Your task to perform on an android device: What's the news in Nepal? Image 0: 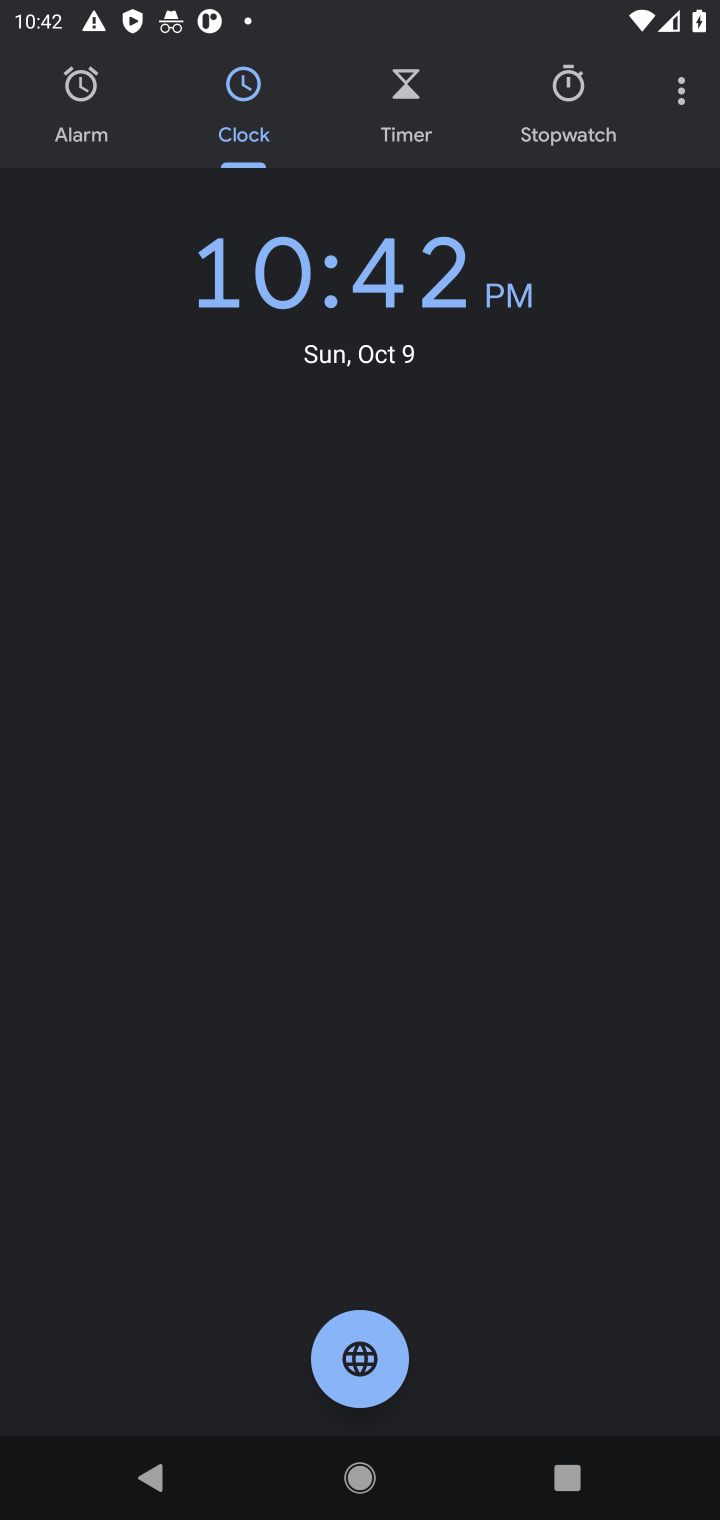
Step 0: press home button
Your task to perform on an android device: What's the news in Nepal? Image 1: 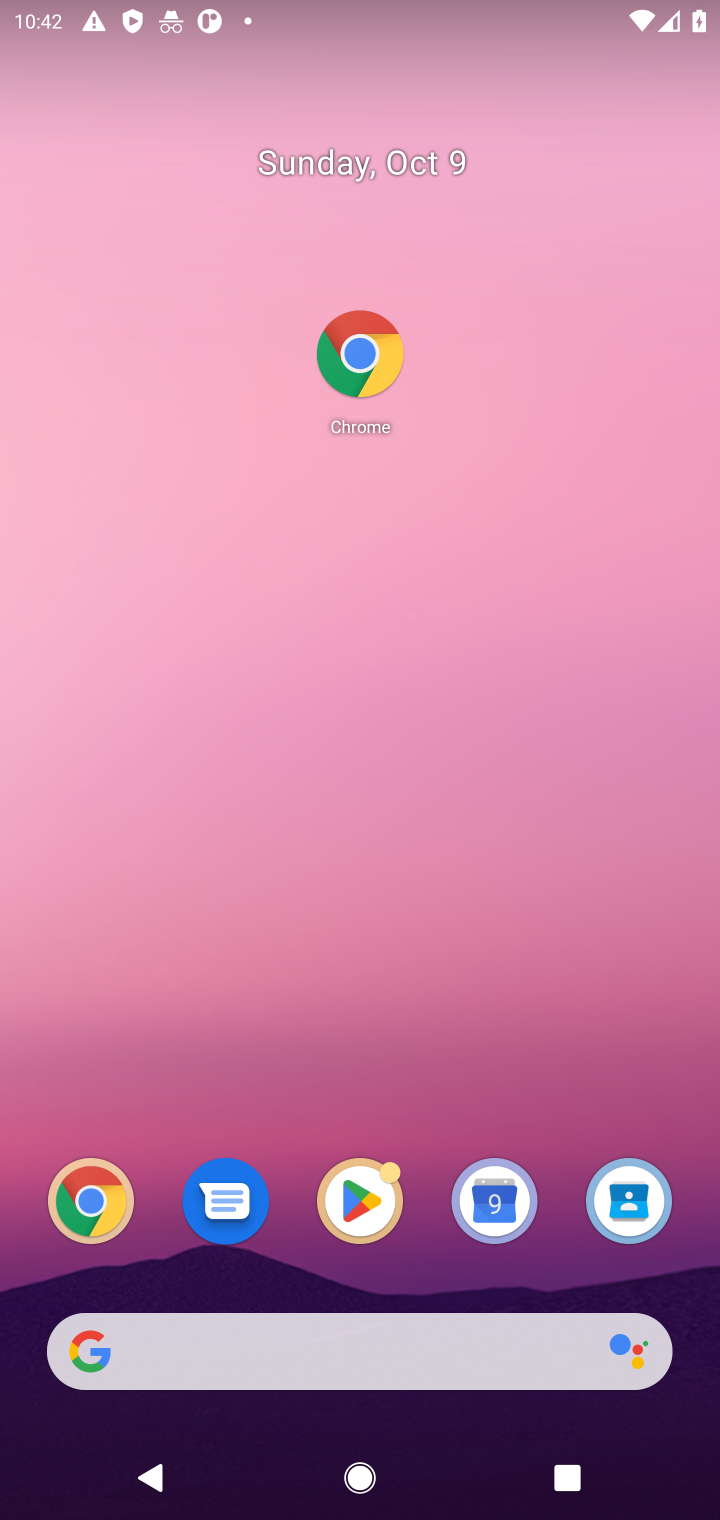
Step 1: click (349, 364)
Your task to perform on an android device: What's the news in Nepal? Image 2: 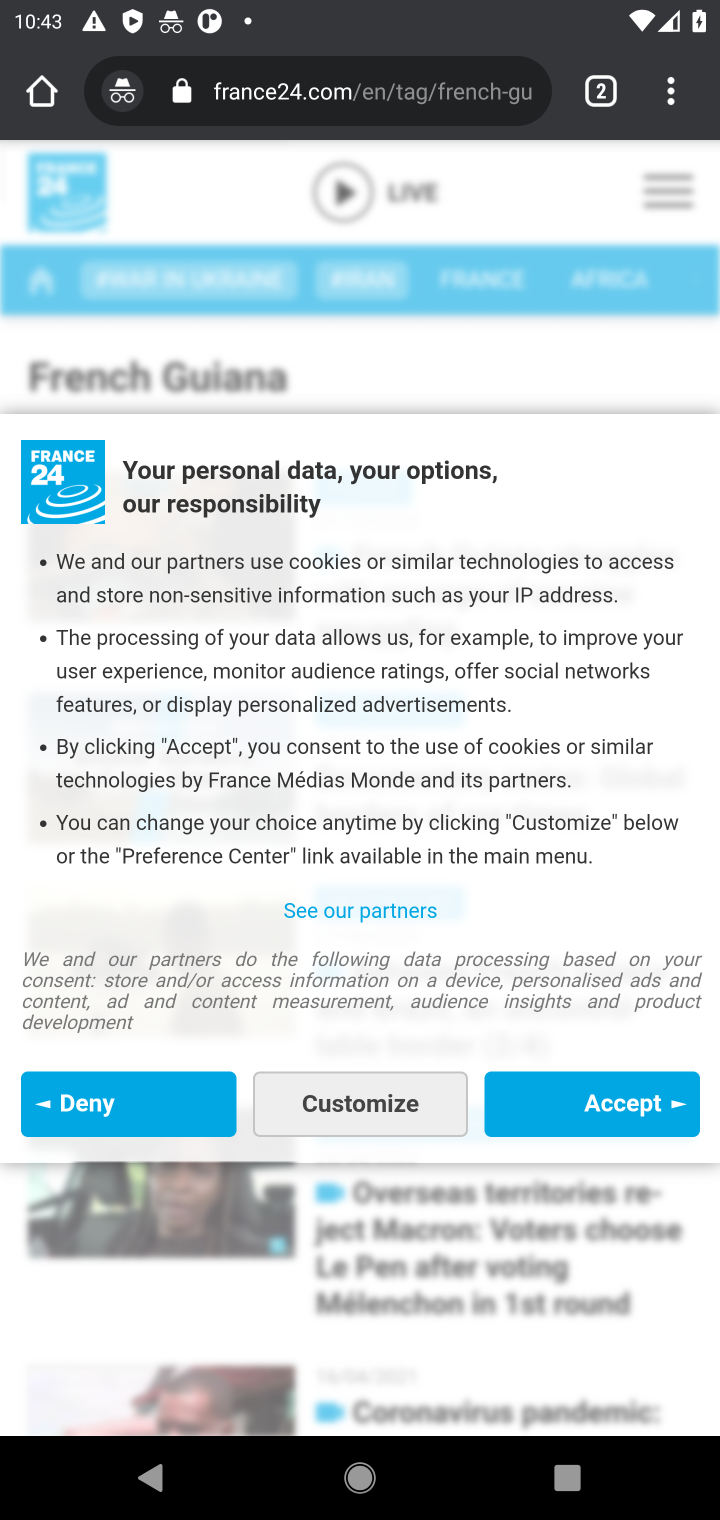
Step 2: click (358, 104)
Your task to perform on an android device: What's the news in Nepal? Image 3: 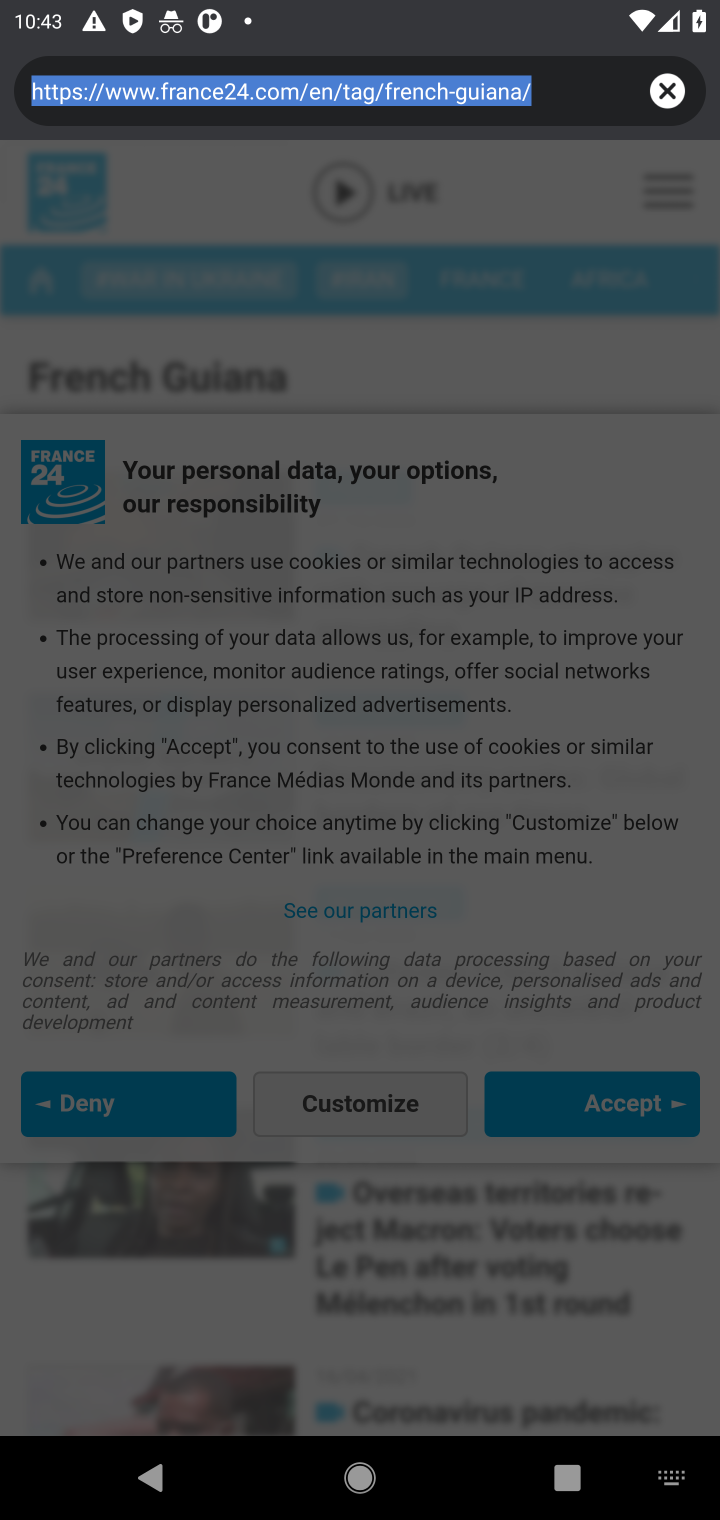
Step 3: drag from (708, 1516) to (79, 1516)
Your task to perform on an android device: What's the news in Nepal? Image 4: 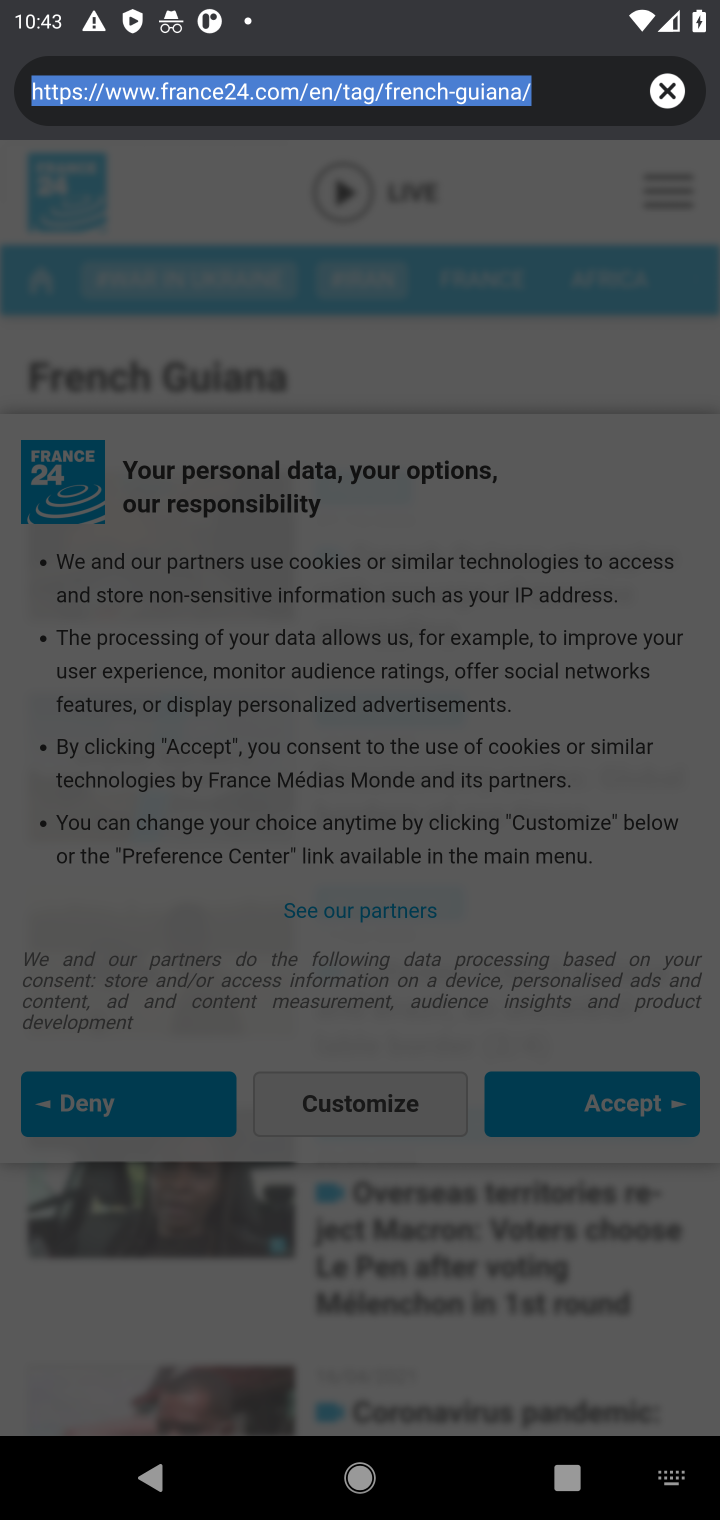
Step 4: type "What's the news in Nepal?"
Your task to perform on an android device: What's the news in Nepal? Image 5: 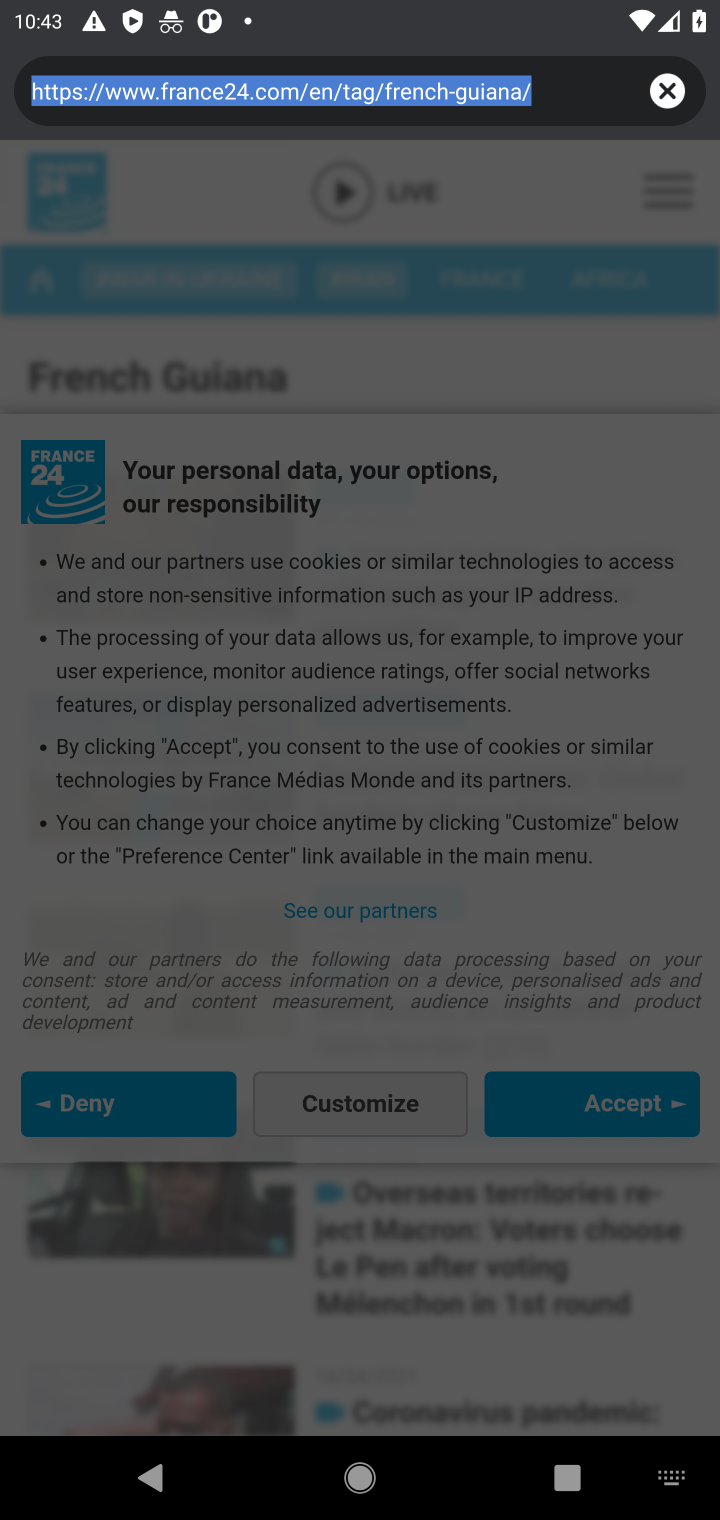
Step 5: click (431, 92)
Your task to perform on an android device: What's the news in Nepal? Image 6: 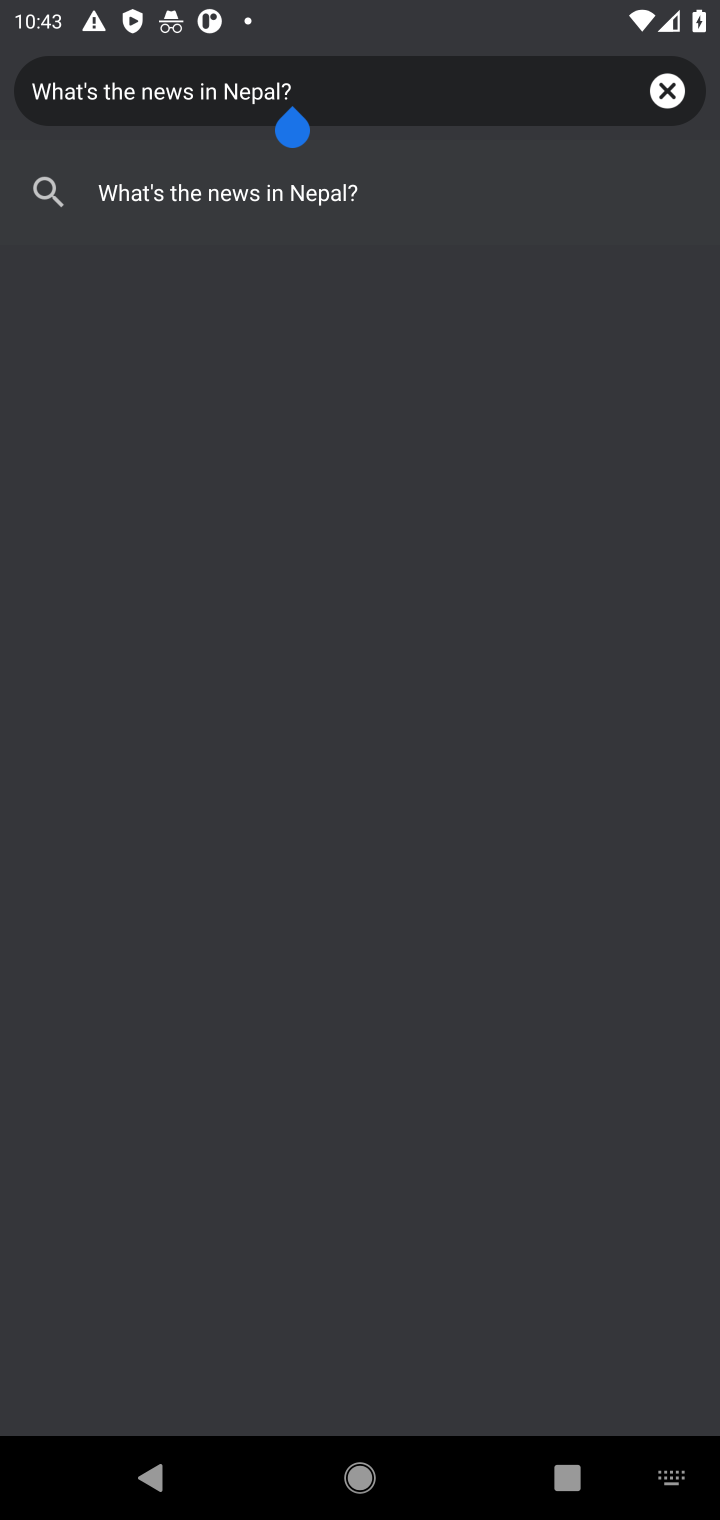
Step 6: click (269, 203)
Your task to perform on an android device: What's the news in Nepal? Image 7: 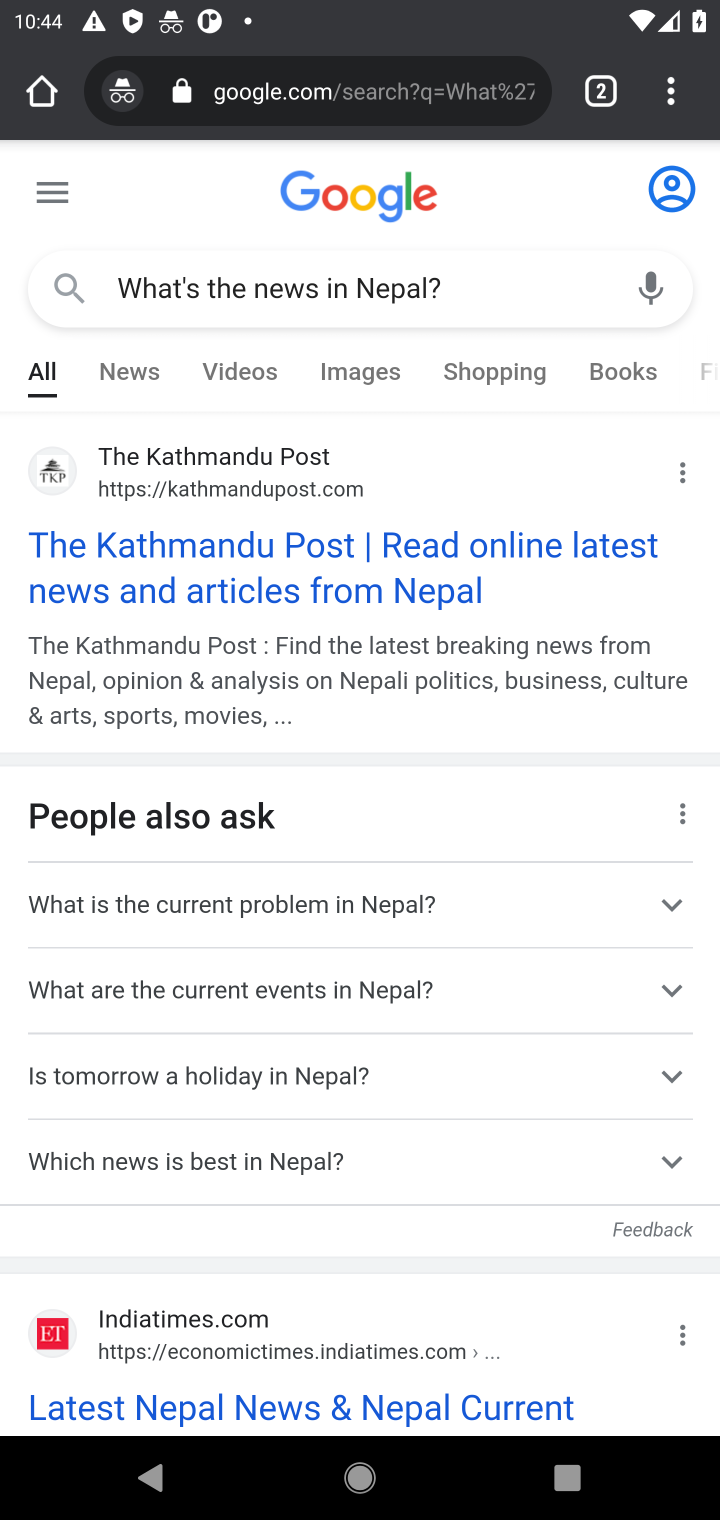
Step 7: click (418, 581)
Your task to perform on an android device: What's the news in Nepal? Image 8: 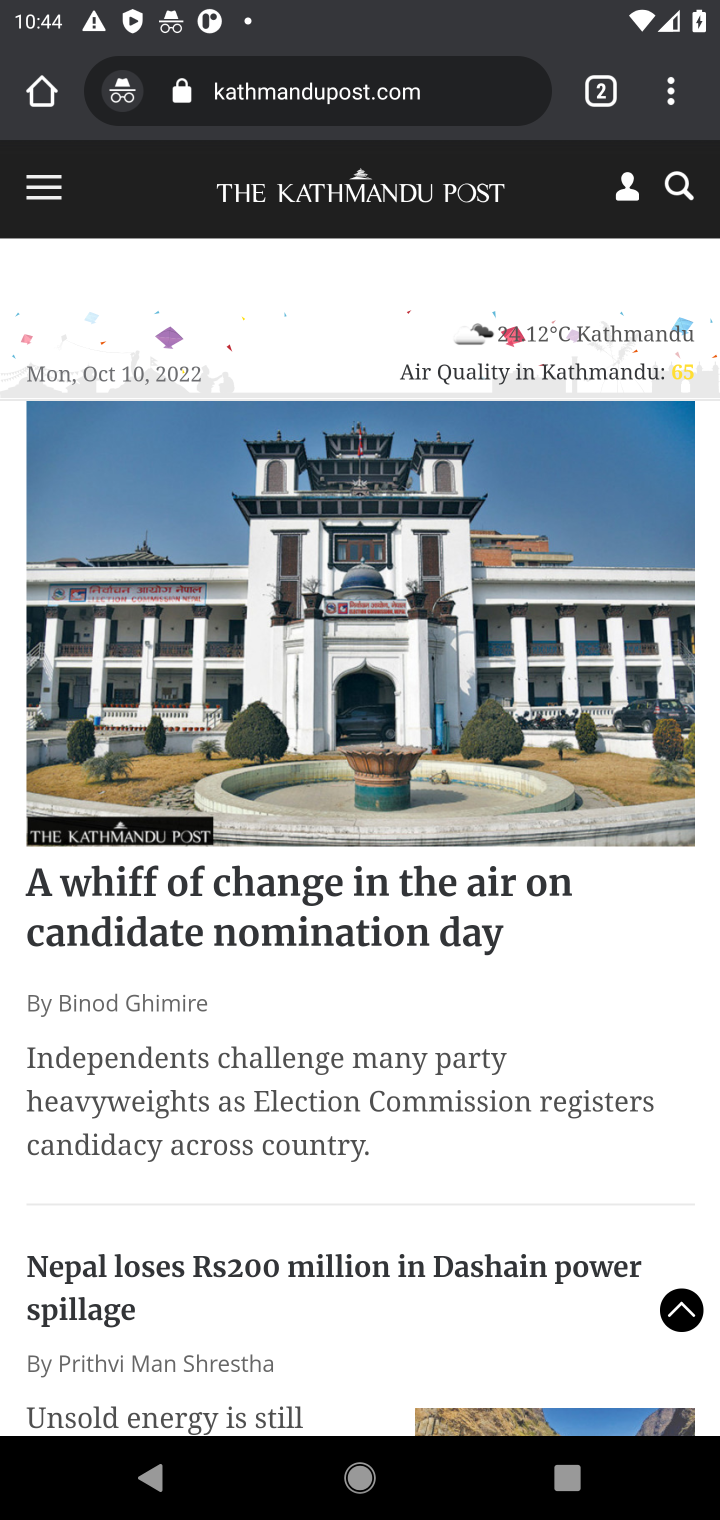
Step 8: task complete